Your task to perform on an android device: Go to Wikipedia Image 0: 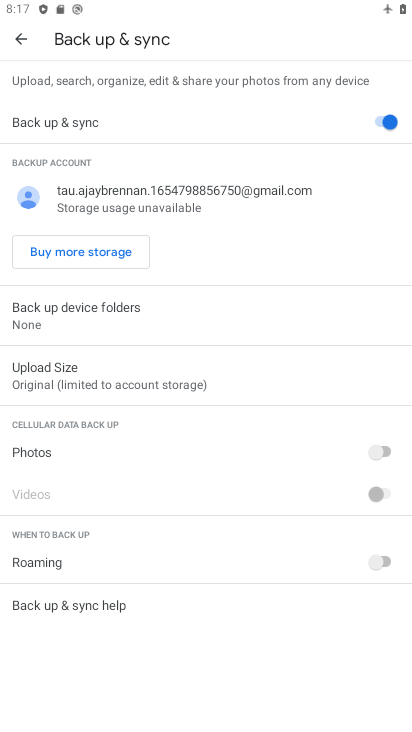
Step 0: press home button
Your task to perform on an android device: Go to Wikipedia Image 1: 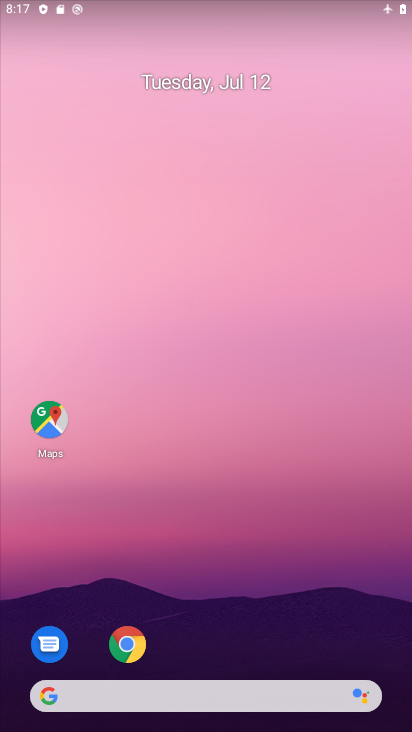
Step 1: click (120, 641)
Your task to perform on an android device: Go to Wikipedia Image 2: 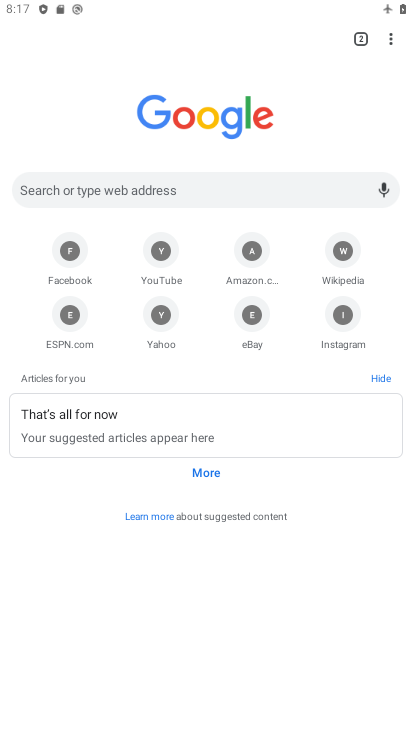
Step 2: click (333, 261)
Your task to perform on an android device: Go to Wikipedia Image 3: 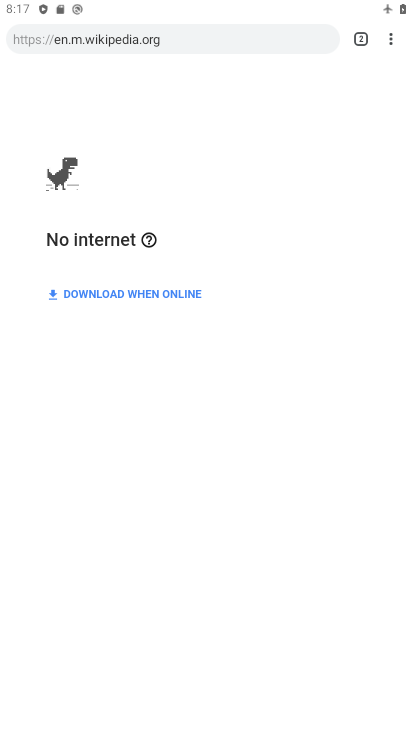
Step 3: task complete